Your task to perform on an android device: move a message to another label in the gmail app Image 0: 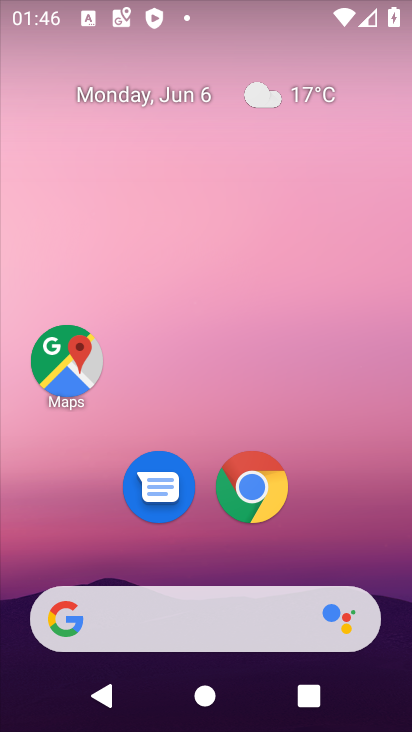
Step 0: drag from (405, 633) to (336, 80)
Your task to perform on an android device: move a message to another label in the gmail app Image 1: 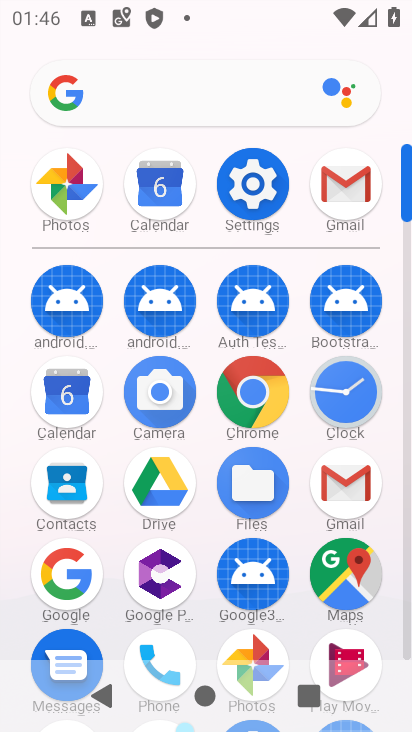
Step 1: click (407, 639)
Your task to perform on an android device: move a message to another label in the gmail app Image 2: 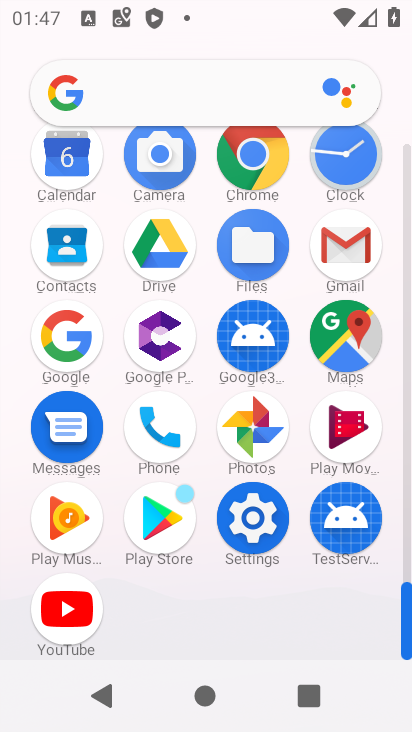
Step 2: click (341, 244)
Your task to perform on an android device: move a message to another label in the gmail app Image 3: 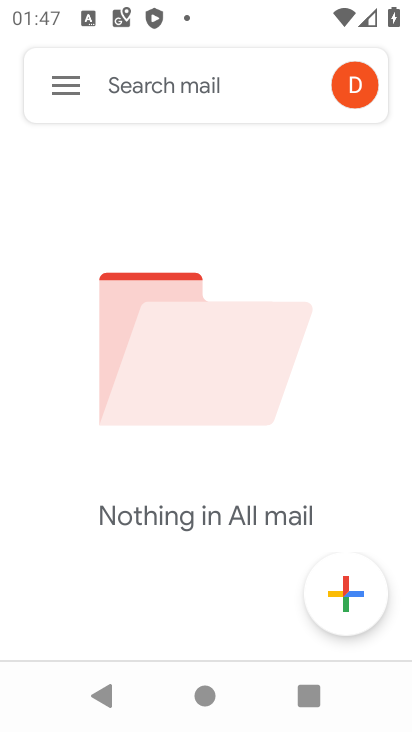
Step 3: click (60, 85)
Your task to perform on an android device: move a message to another label in the gmail app Image 4: 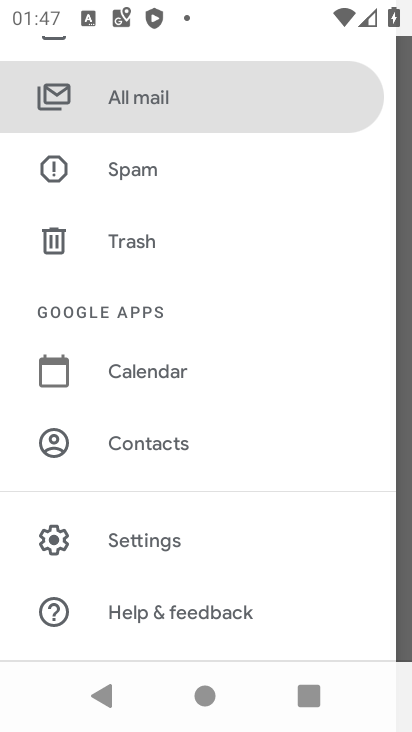
Step 4: drag from (219, 231) to (241, 413)
Your task to perform on an android device: move a message to another label in the gmail app Image 5: 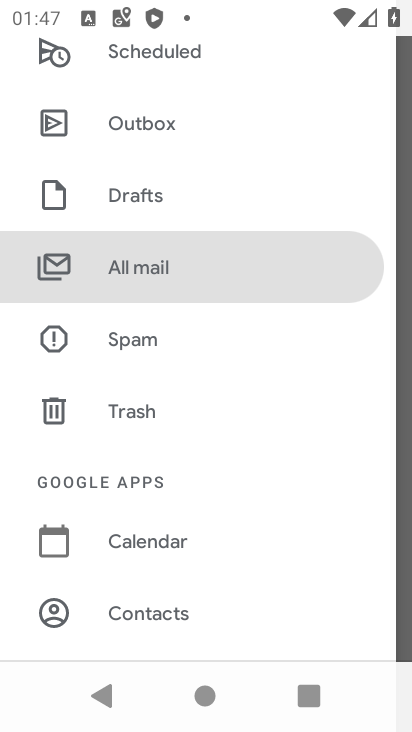
Step 5: click (140, 266)
Your task to perform on an android device: move a message to another label in the gmail app Image 6: 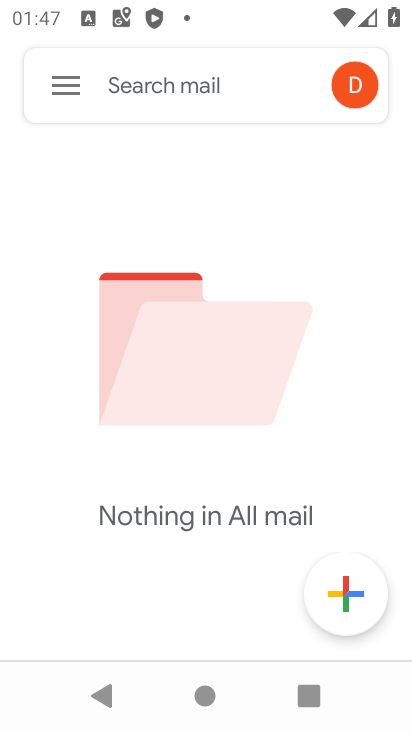
Step 6: task complete